Your task to perform on an android device: set an alarm Image 0: 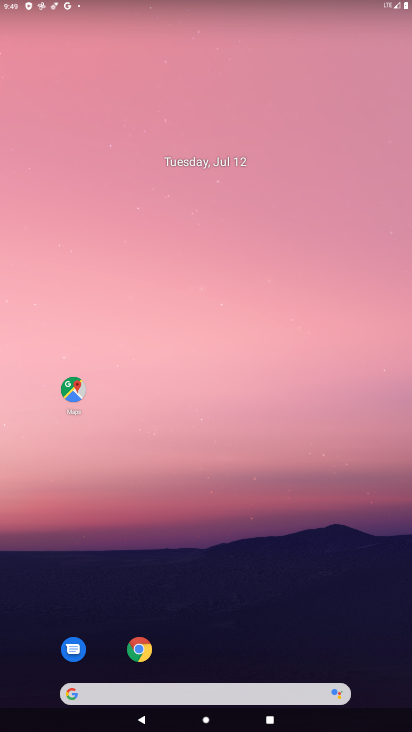
Step 0: drag from (281, 638) to (339, 160)
Your task to perform on an android device: set an alarm Image 1: 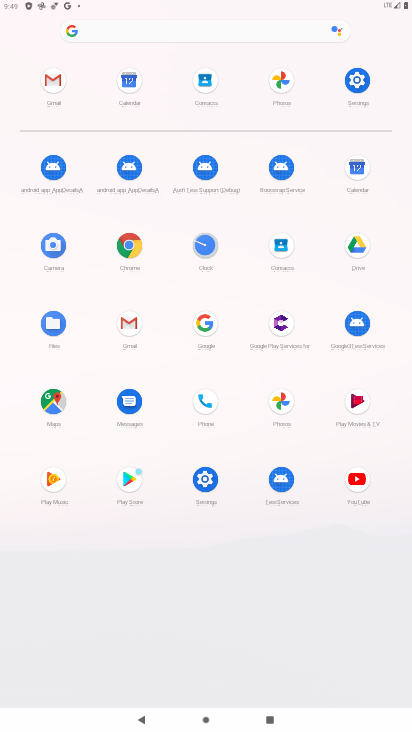
Step 1: click (203, 251)
Your task to perform on an android device: set an alarm Image 2: 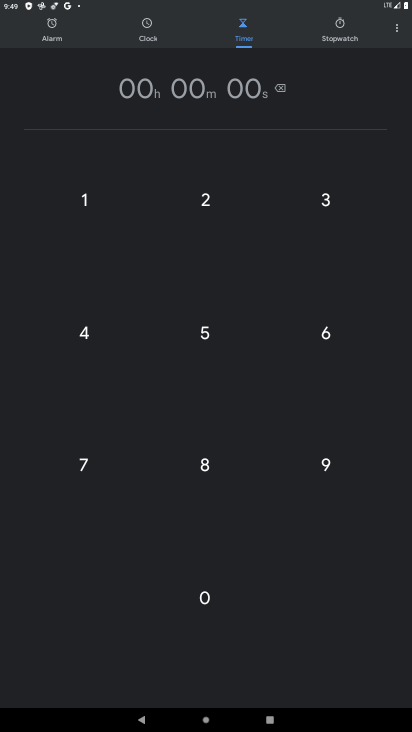
Step 2: click (30, 42)
Your task to perform on an android device: set an alarm Image 3: 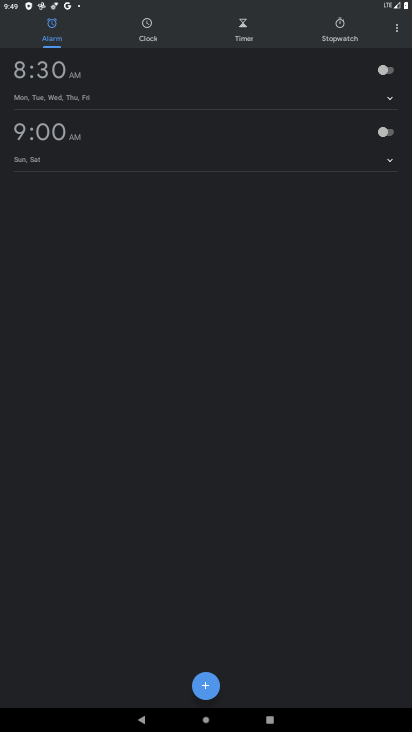
Step 3: click (378, 76)
Your task to perform on an android device: set an alarm Image 4: 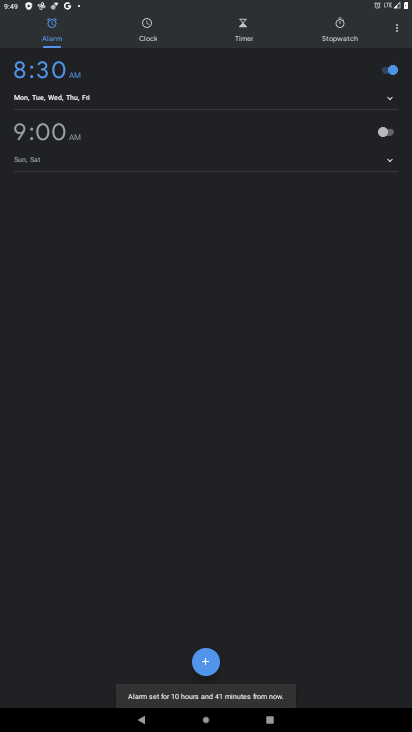
Step 4: task complete